Your task to perform on an android device: create a new album in the google photos Image 0: 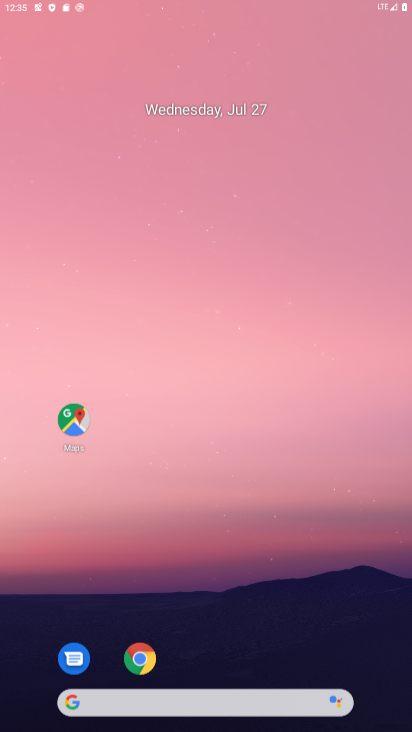
Step 0: click (181, 591)
Your task to perform on an android device: create a new album in the google photos Image 1: 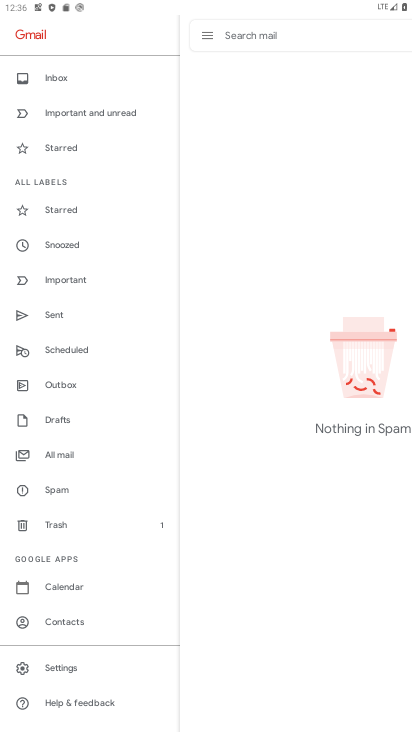
Step 1: press home button
Your task to perform on an android device: create a new album in the google photos Image 2: 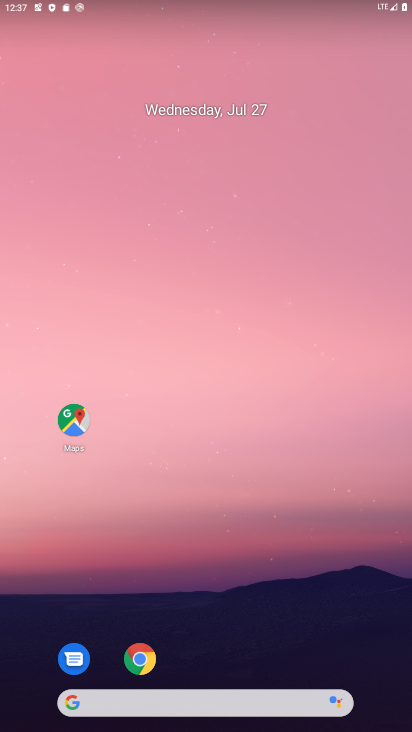
Step 2: drag from (231, 488) to (249, 68)
Your task to perform on an android device: create a new album in the google photos Image 3: 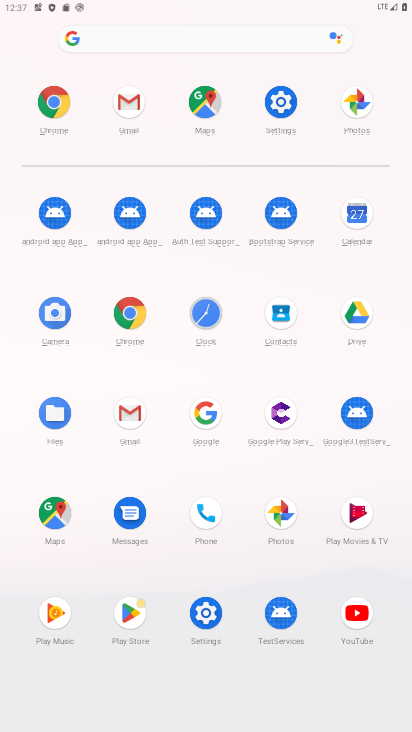
Step 3: click (294, 518)
Your task to perform on an android device: create a new album in the google photos Image 4: 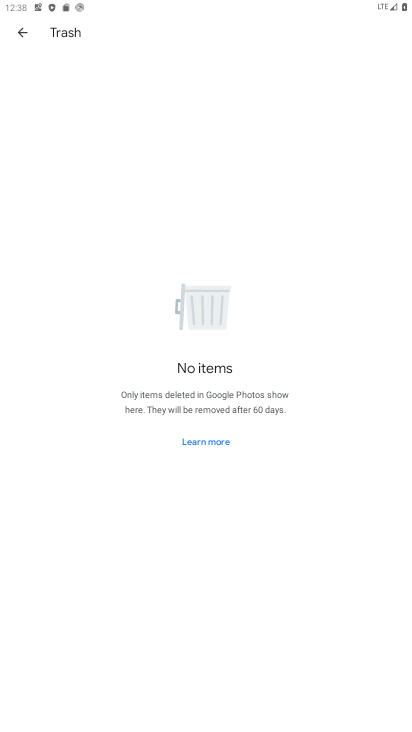
Step 4: press back button
Your task to perform on an android device: create a new album in the google photos Image 5: 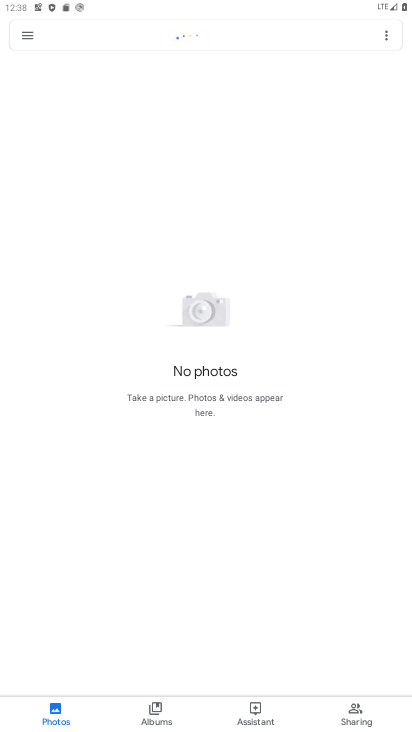
Step 5: click (133, 709)
Your task to perform on an android device: create a new album in the google photos Image 6: 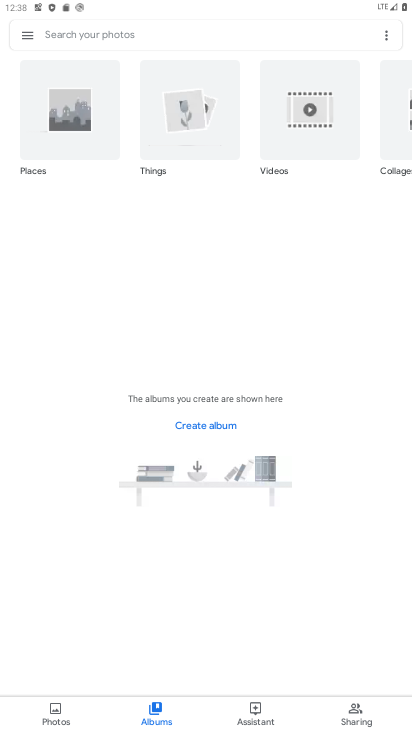
Step 6: click (209, 425)
Your task to perform on an android device: create a new album in the google photos Image 7: 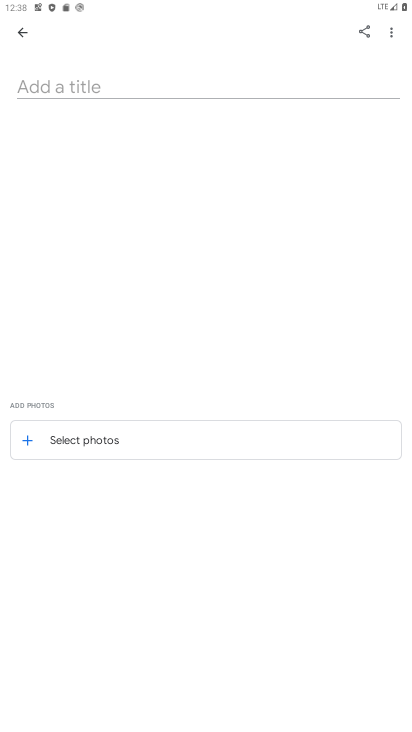
Step 7: click (181, 435)
Your task to perform on an android device: create a new album in the google photos Image 8: 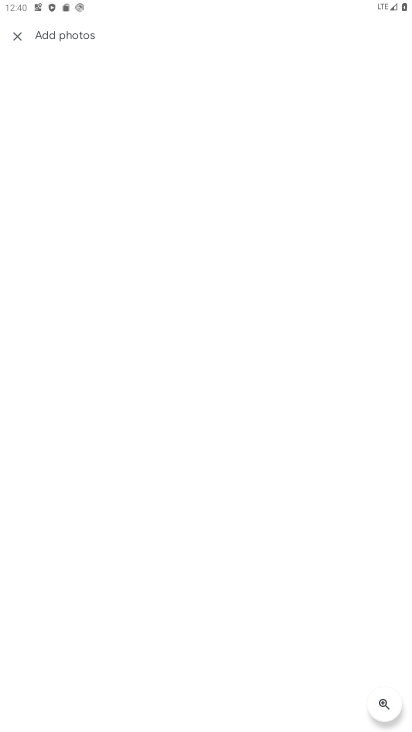
Step 8: task complete